Your task to perform on an android device: check out phone information Image 0: 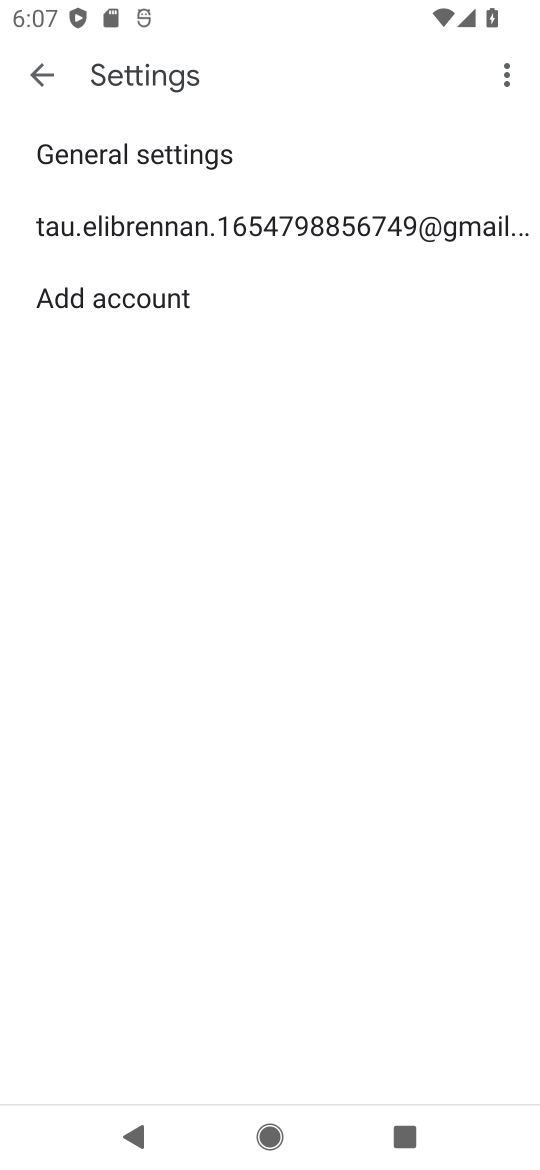
Step 0: press home button
Your task to perform on an android device: check out phone information Image 1: 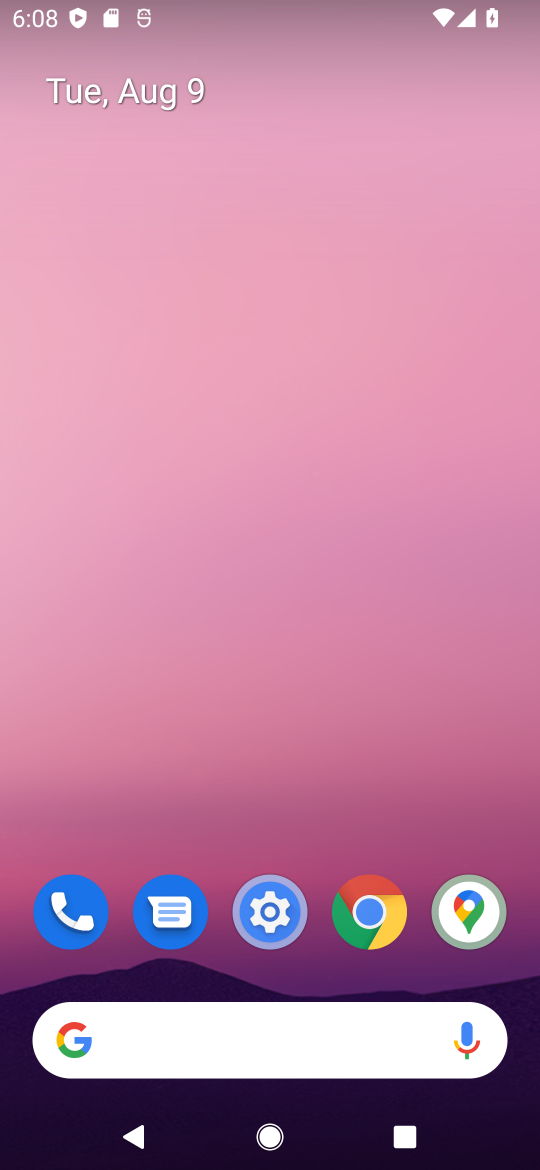
Step 1: click (246, 911)
Your task to perform on an android device: check out phone information Image 2: 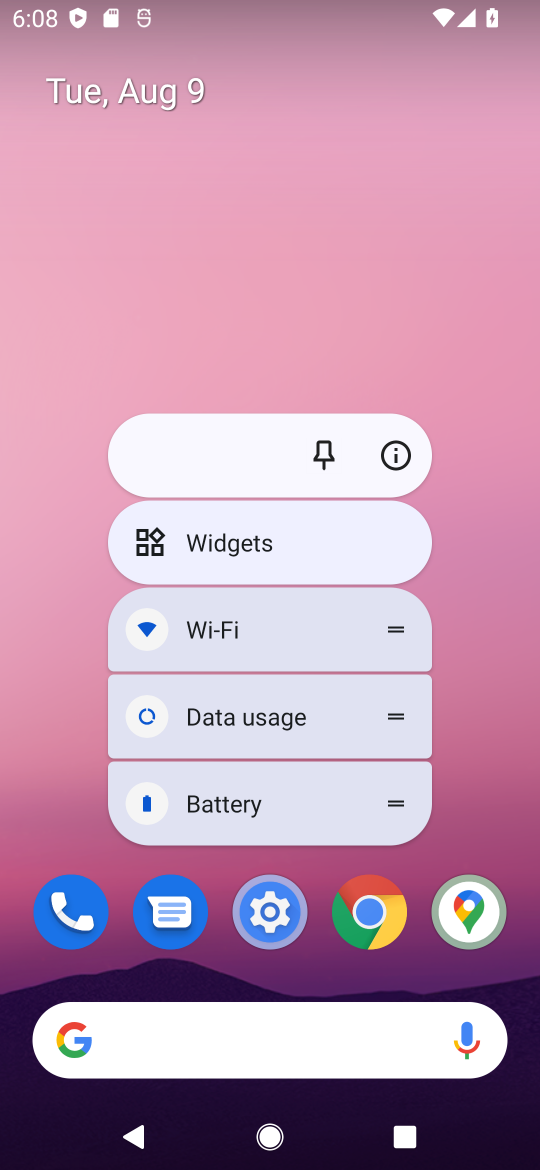
Step 2: click (291, 923)
Your task to perform on an android device: check out phone information Image 3: 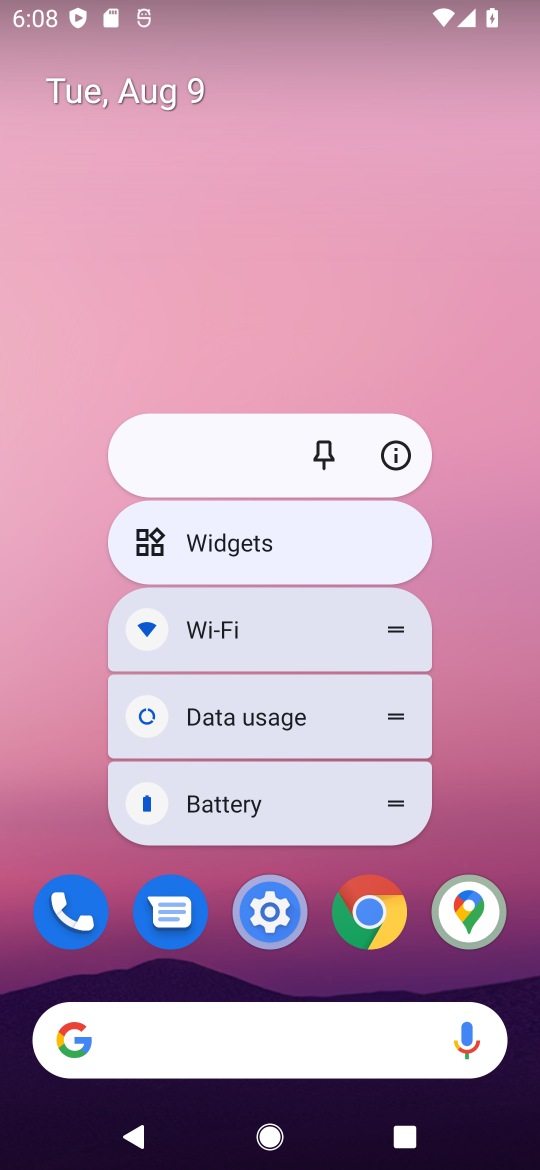
Step 3: click (269, 919)
Your task to perform on an android device: check out phone information Image 4: 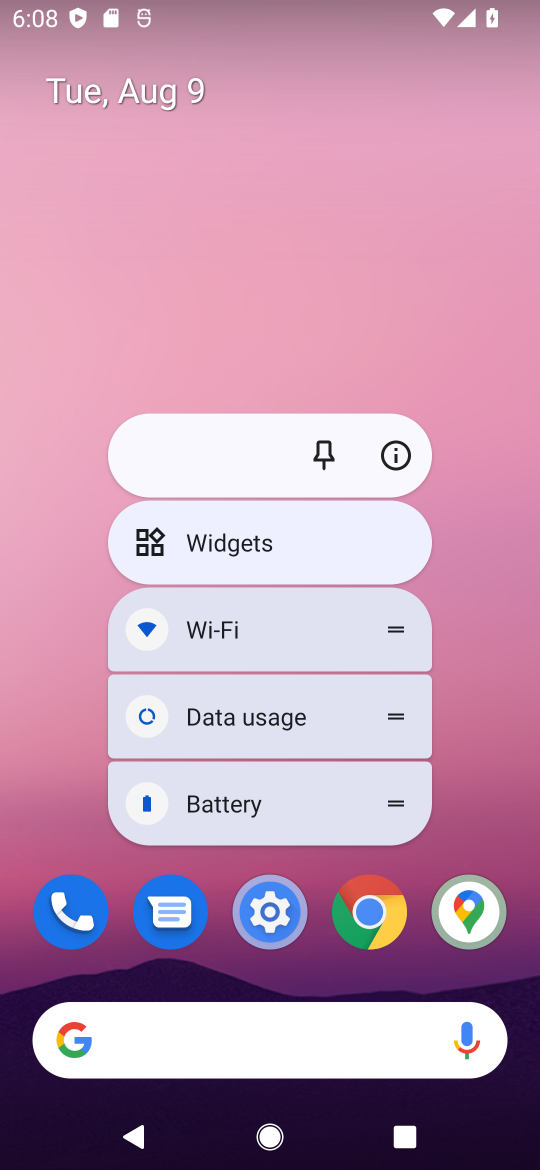
Step 4: click (254, 913)
Your task to perform on an android device: check out phone information Image 5: 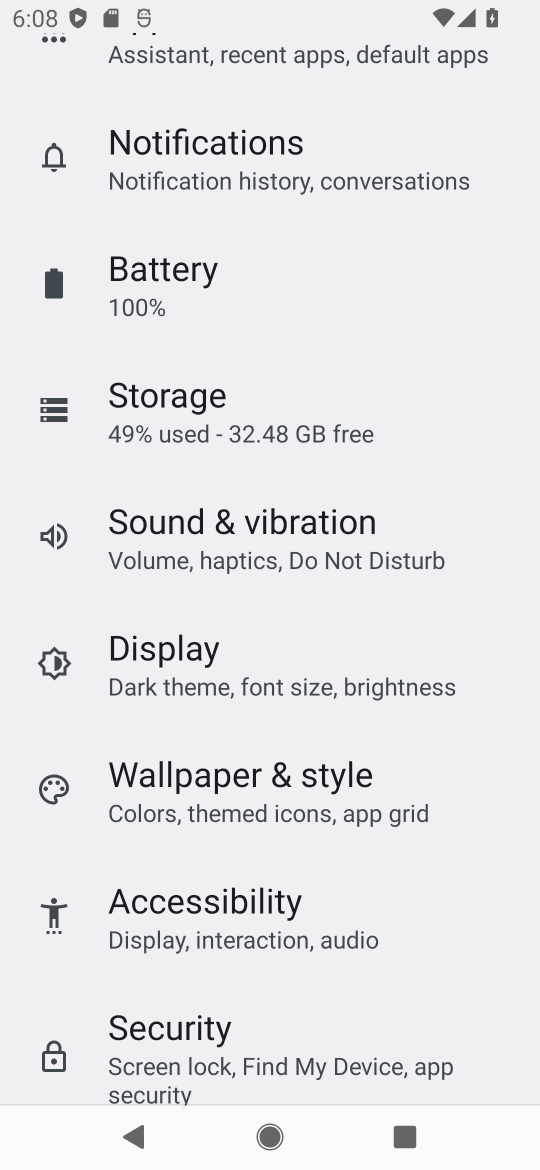
Step 5: drag from (268, 982) to (324, 346)
Your task to perform on an android device: check out phone information Image 6: 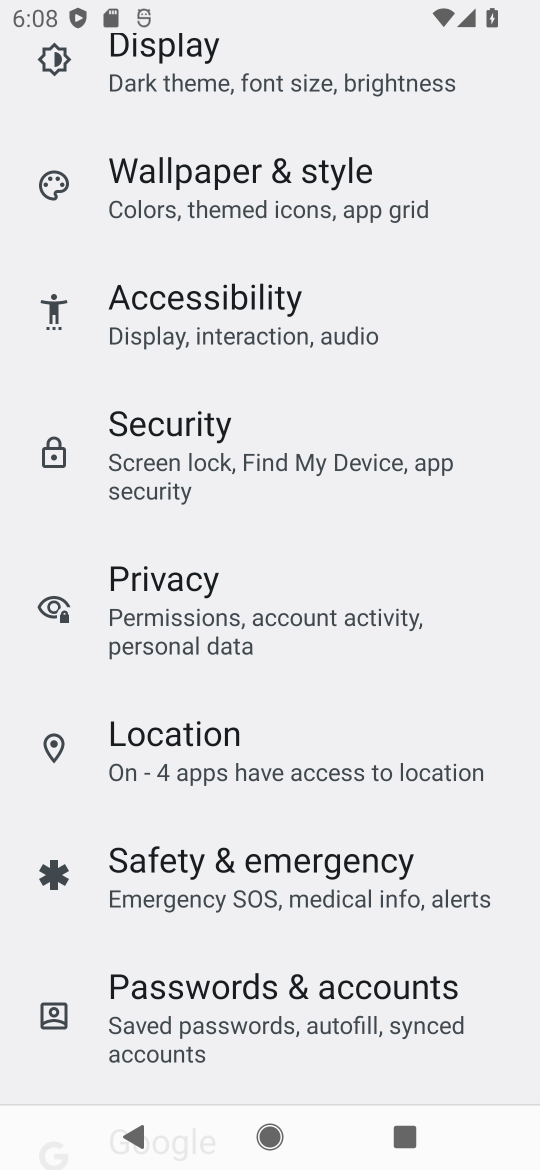
Step 6: drag from (215, 940) to (277, 96)
Your task to perform on an android device: check out phone information Image 7: 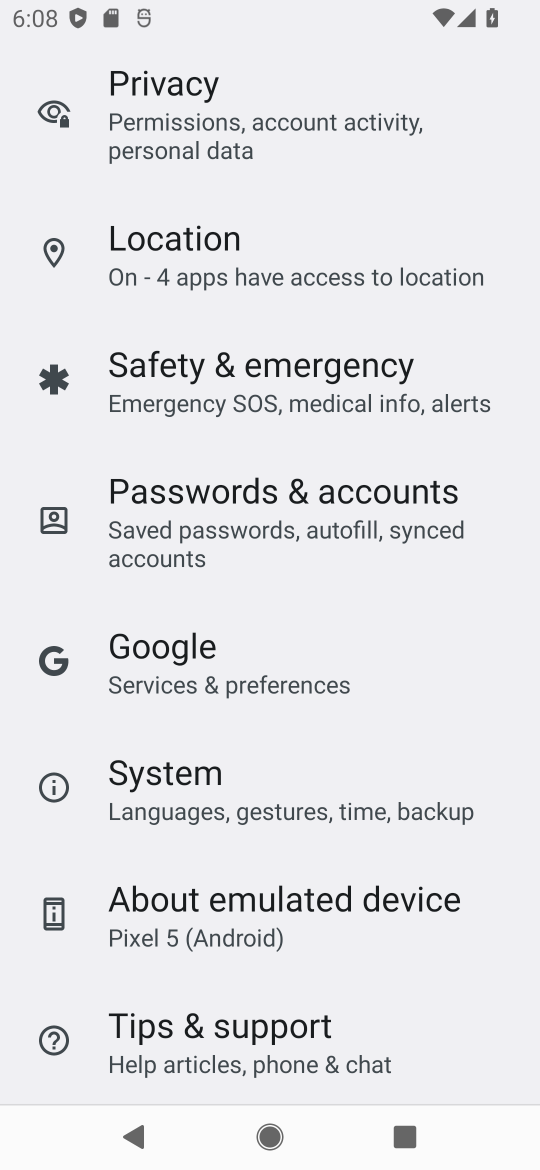
Step 7: drag from (232, 840) to (209, 50)
Your task to perform on an android device: check out phone information Image 8: 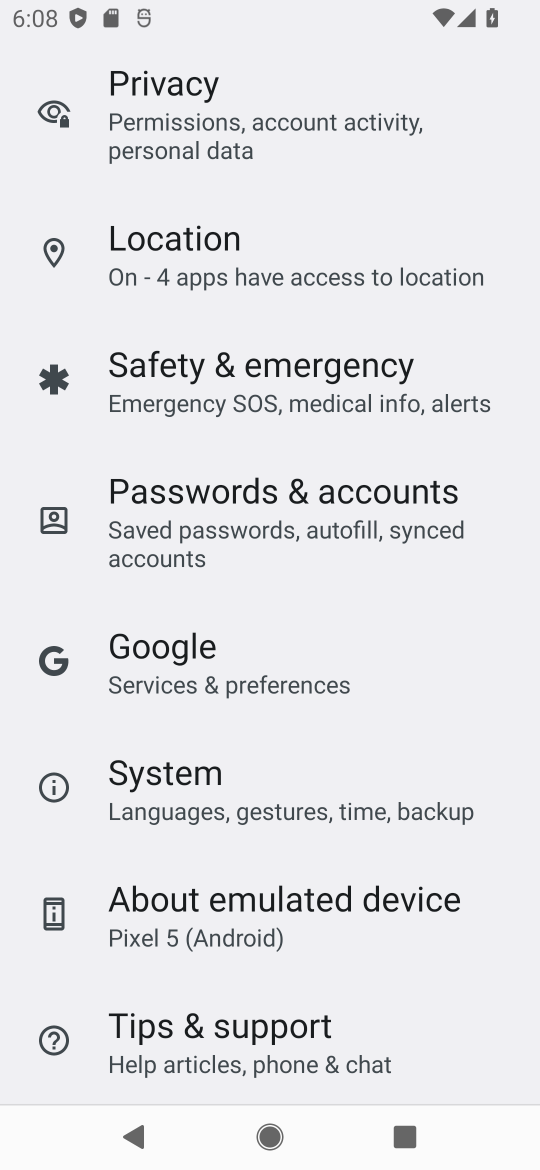
Step 8: click (205, 924)
Your task to perform on an android device: check out phone information Image 9: 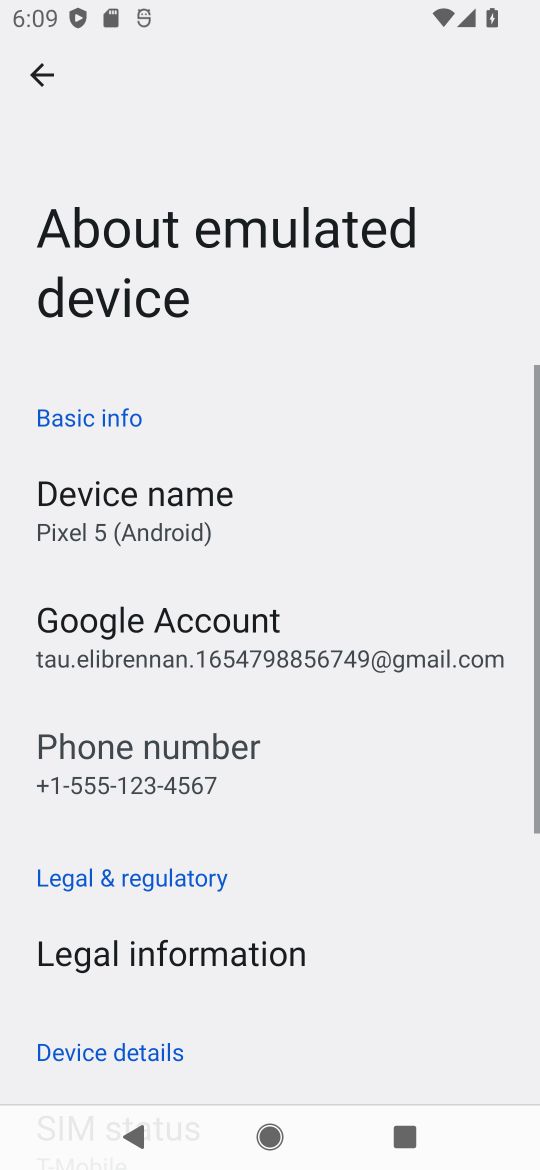
Step 9: task complete